Your task to perform on an android device: Open my contact list Image 0: 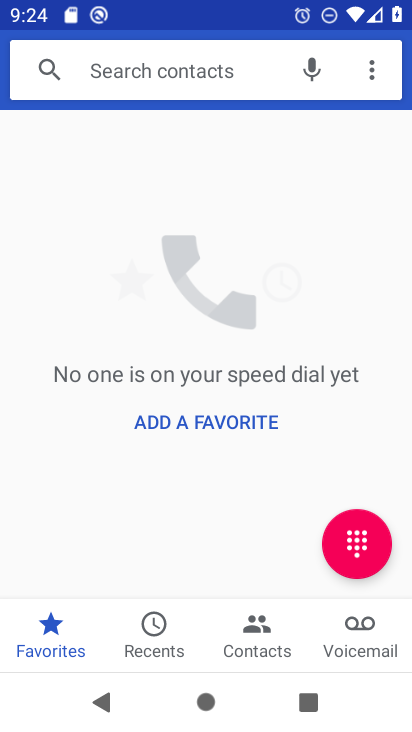
Step 0: press home button
Your task to perform on an android device: Open my contact list Image 1: 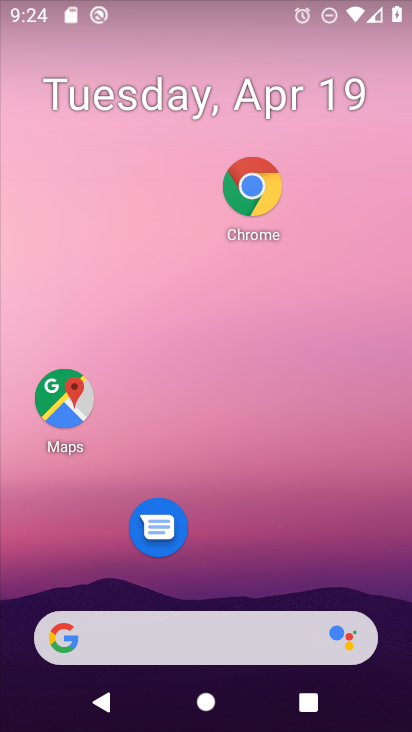
Step 1: drag from (237, 575) to (298, 251)
Your task to perform on an android device: Open my contact list Image 2: 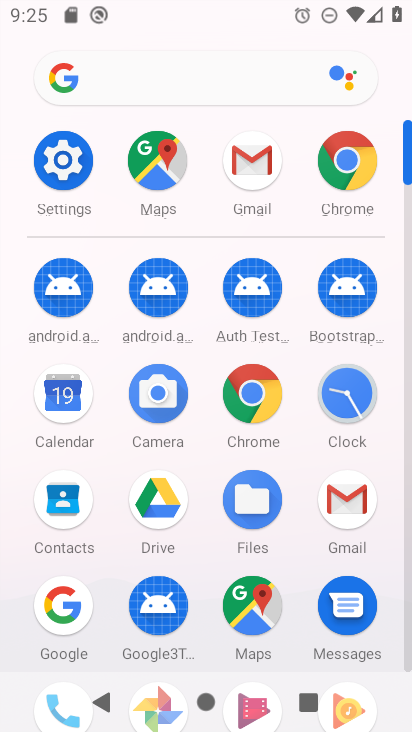
Step 2: drag from (307, 527) to (317, 287)
Your task to perform on an android device: Open my contact list Image 3: 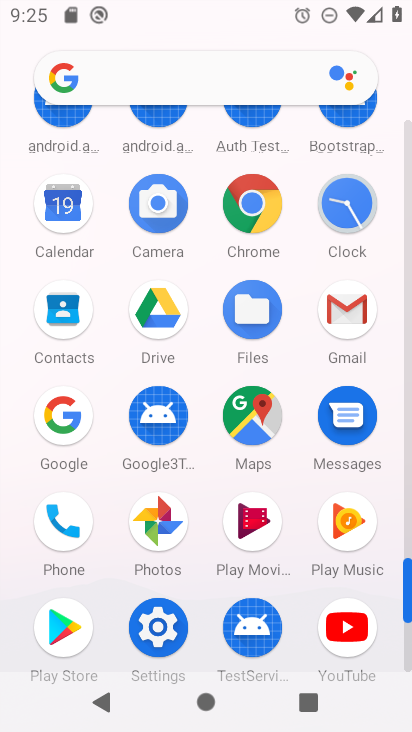
Step 3: click (57, 518)
Your task to perform on an android device: Open my contact list Image 4: 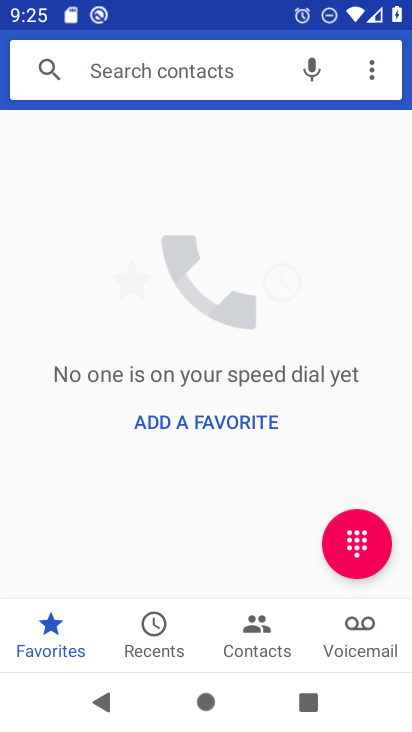
Step 4: click (270, 619)
Your task to perform on an android device: Open my contact list Image 5: 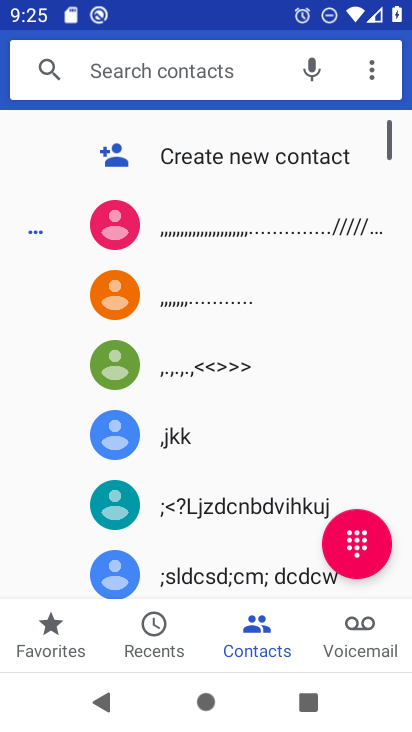
Step 5: task complete